Your task to perform on an android device: Open maps Image 0: 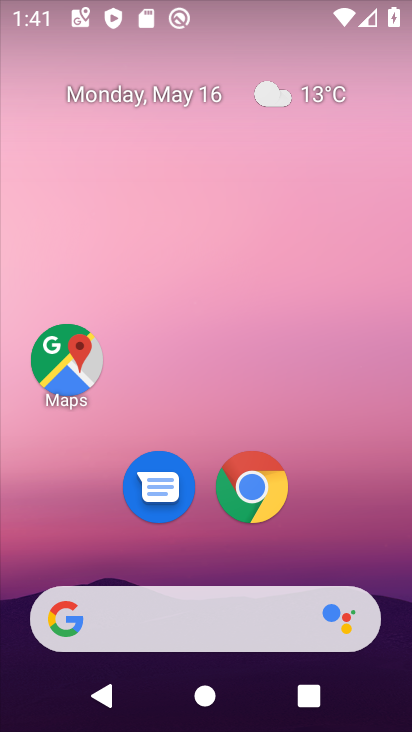
Step 0: drag from (343, 546) to (249, 4)
Your task to perform on an android device: Open maps Image 1: 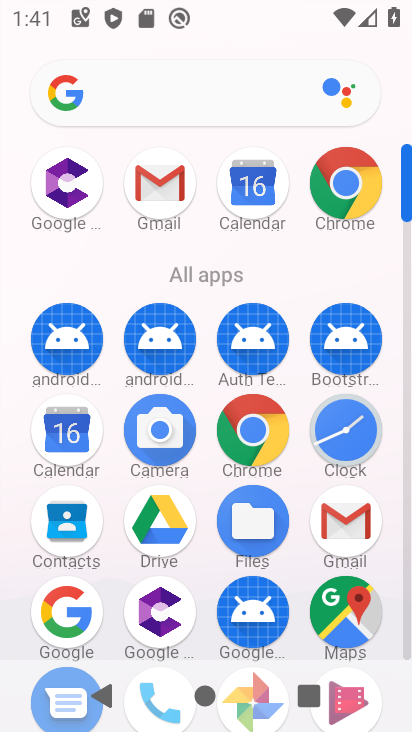
Step 1: drag from (6, 565) to (22, 317)
Your task to perform on an android device: Open maps Image 2: 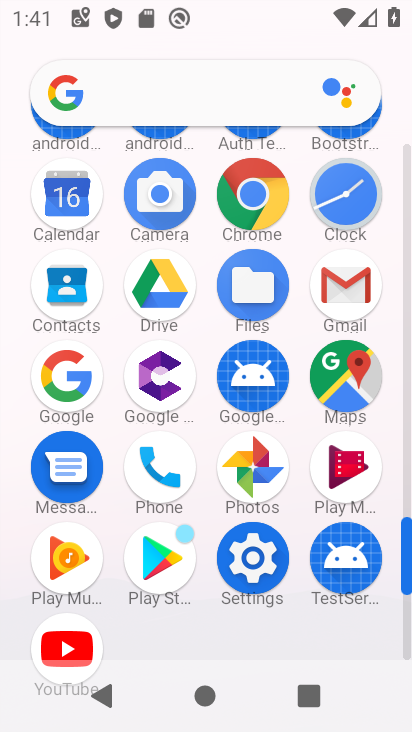
Step 2: click (346, 373)
Your task to perform on an android device: Open maps Image 3: 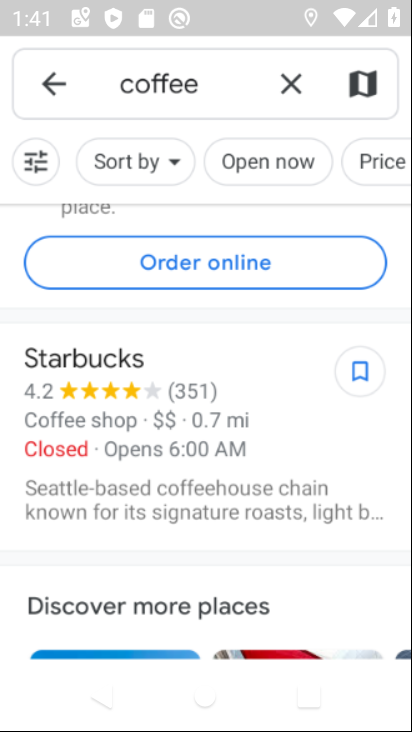
Step 3: click (61, 86)
Your task to perform on an android device: Open maps Image 4: 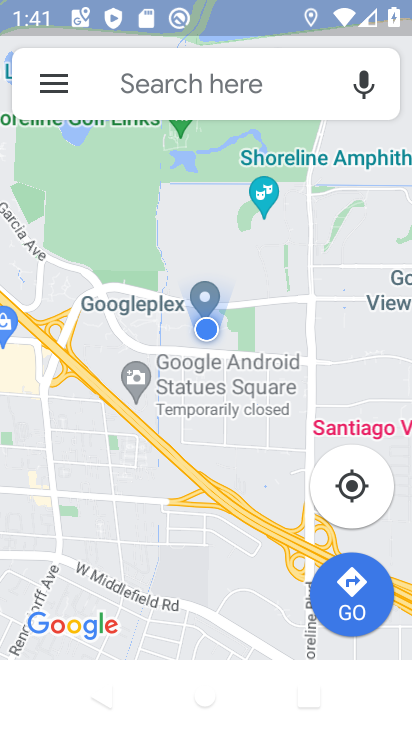
Step 4: task complete